Your task to perform on an android device: Open a new Chrome private tab Image 0: 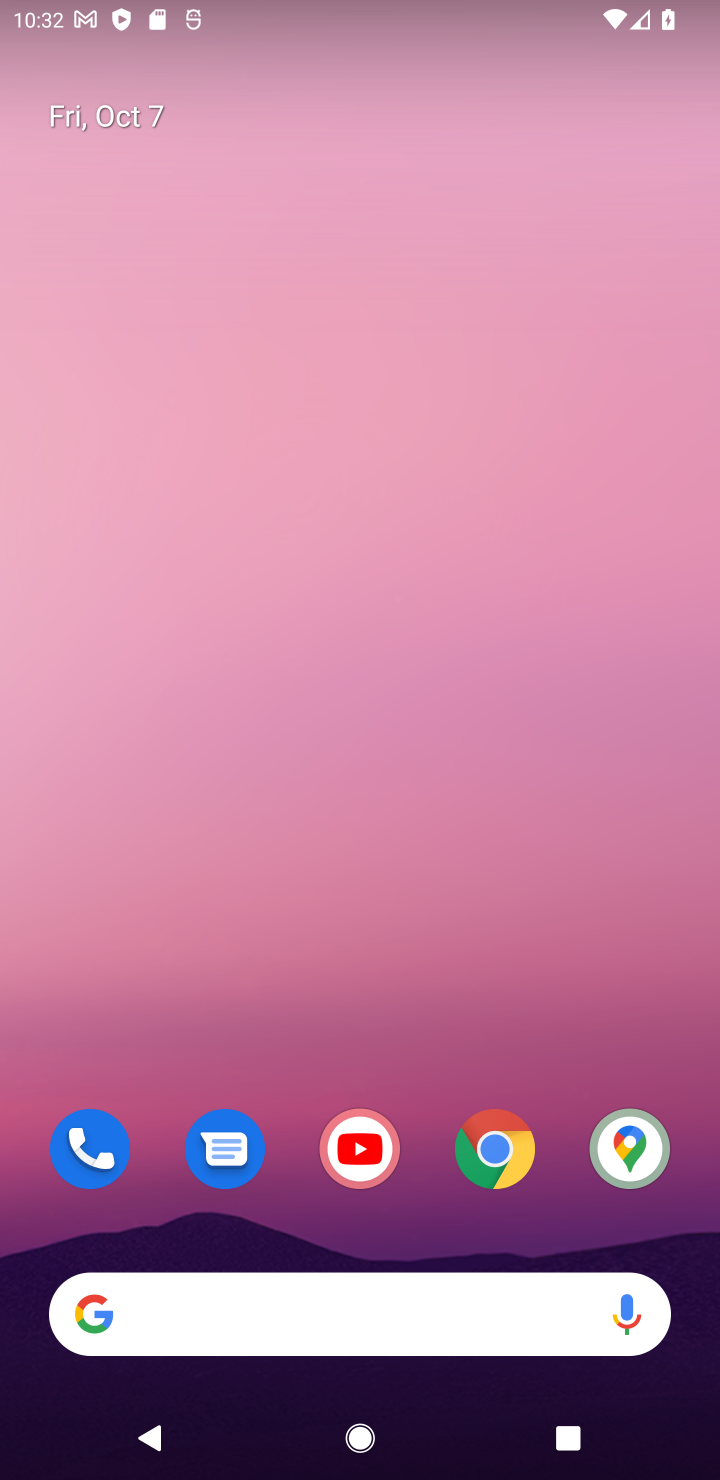
Step 0: click (468, 1175)
Your task to perform on an android device: Open a new Chrome private tab Image 1: 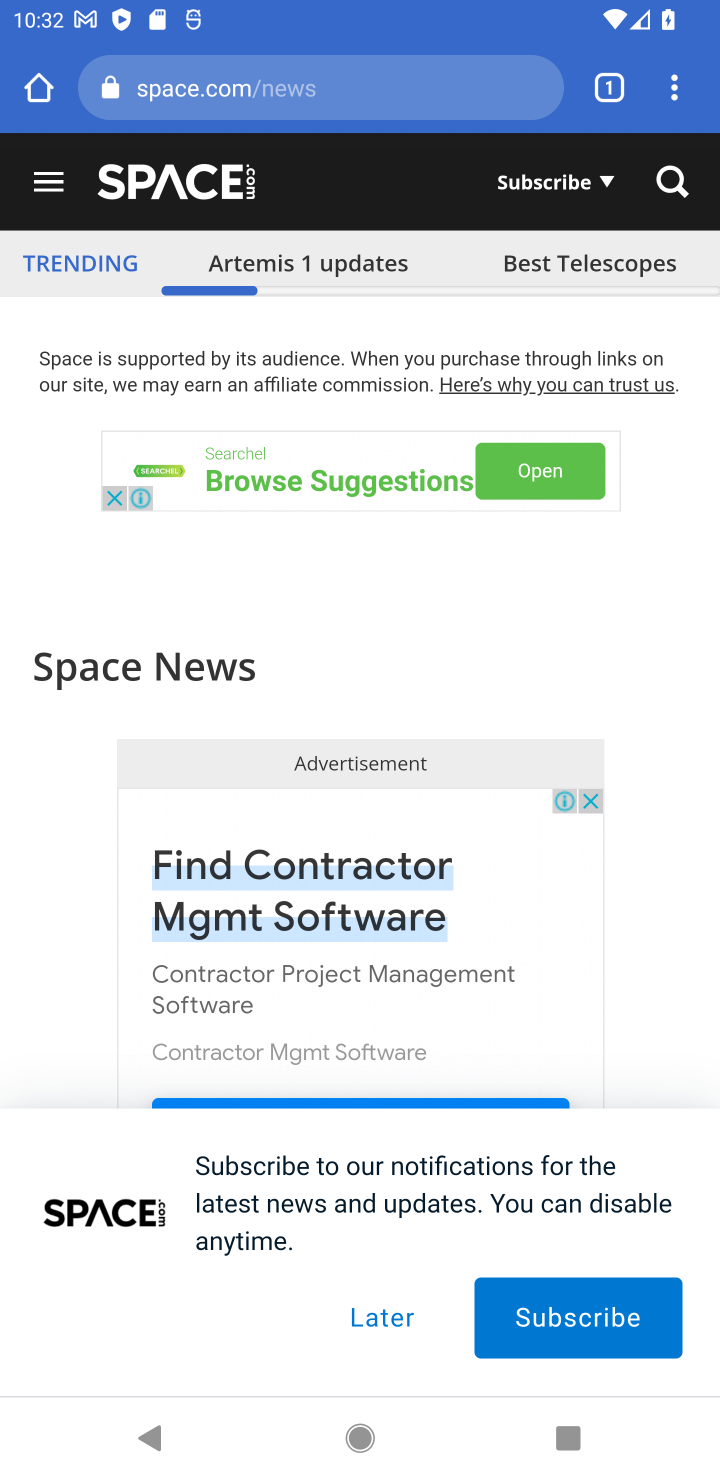
Step 1: click (691, 97)
Your task to perform on an android device: Open a new Chrome private tab Image 2: 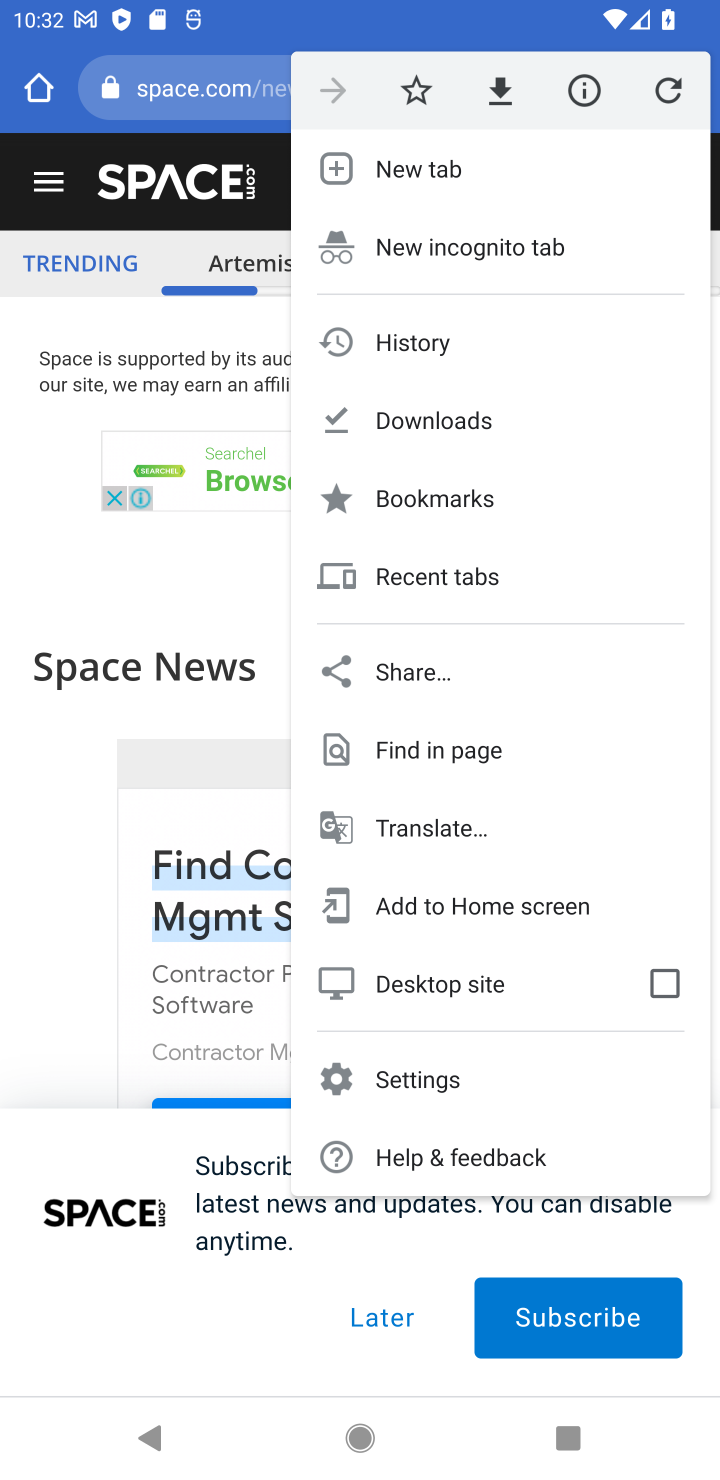
Step 2: click (564, 236)
Your task to perform on an android device: Open a new Chrome private tab Image 3: 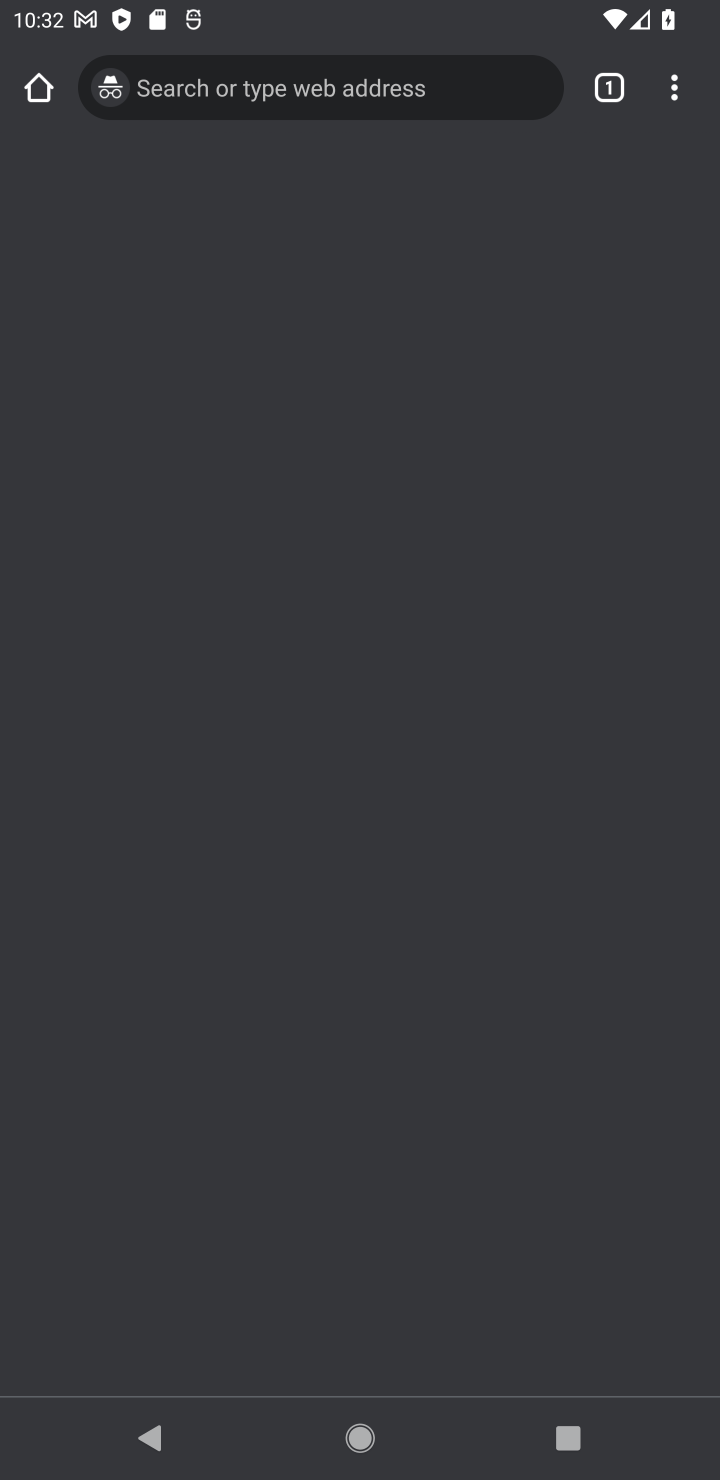
Step 3: task complete